Your task to perform on an android device: How big is the universe? Image 0: 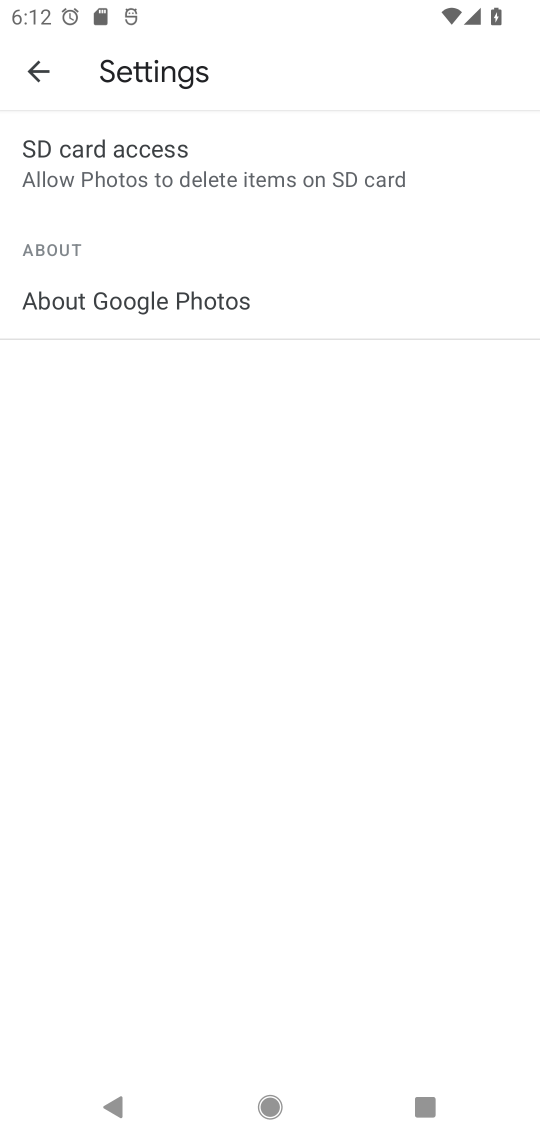
Step 0: press home button
Your task to perform on an android device: How big is the universe? Image 1: 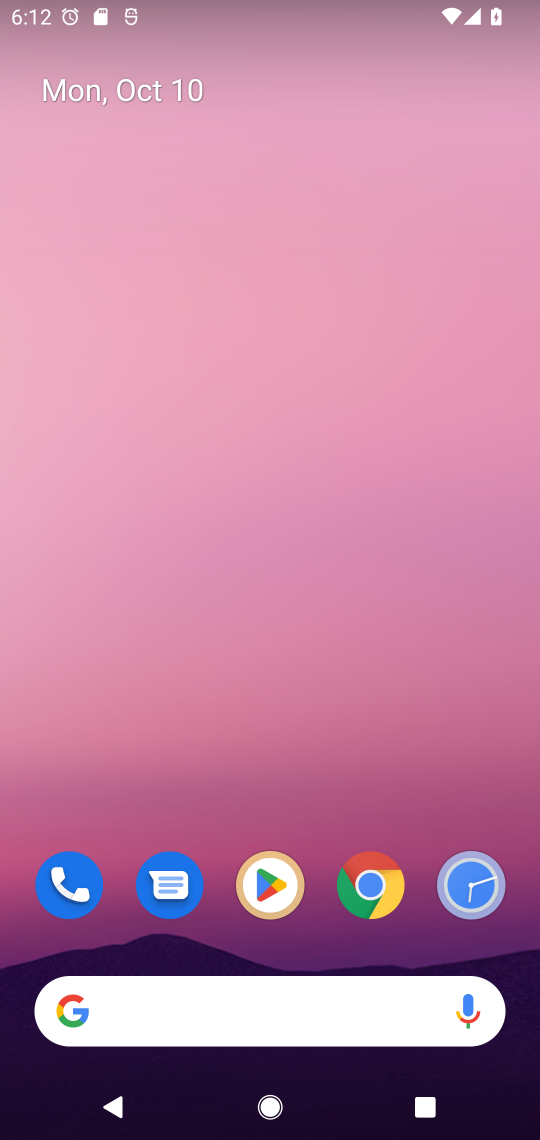
Step 1: click (370, 883)
Your task to perform on an android device: How big is the universe? Image 2: 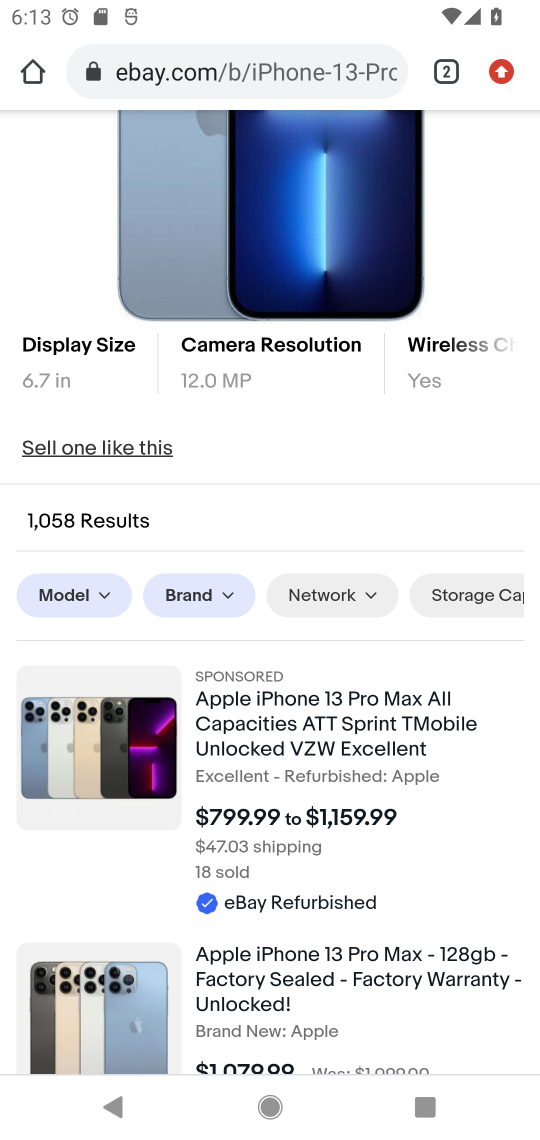
Step 2: click (192, 72)
Your task to perform on an android device: How big is the universe? Image 3: 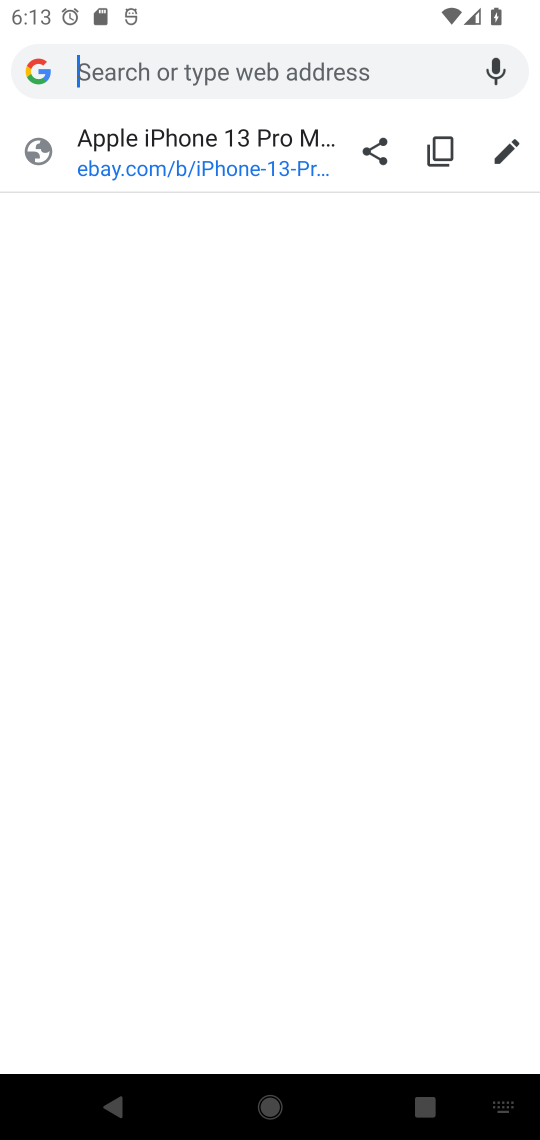
Step 3: type "How big is the universe"
Your task to perform on an android device: How big is the universe? Image 4: 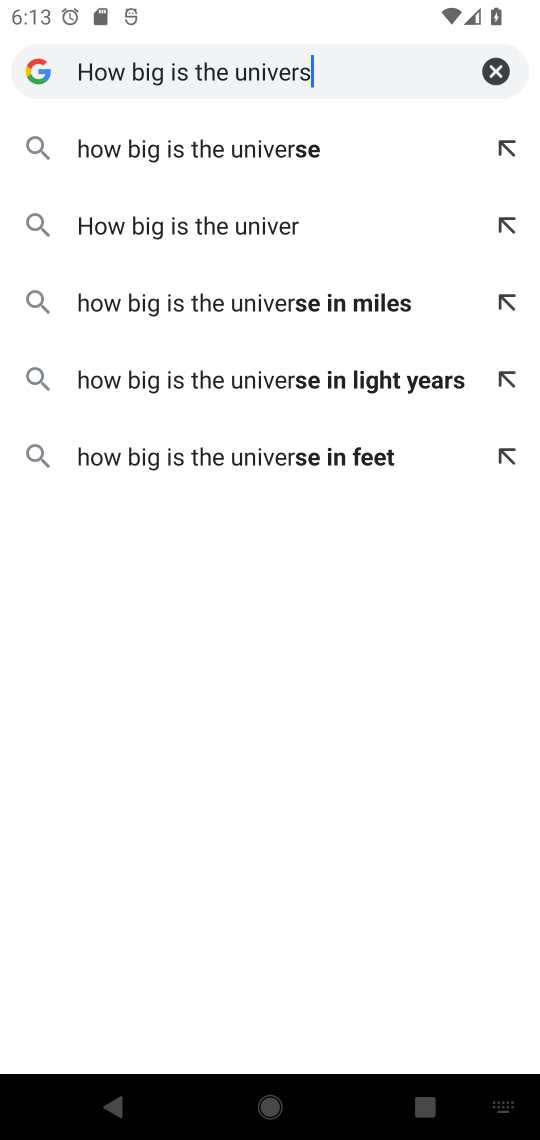
Step 4: type ""
Your task to perform on an android device: How big is the universe? Image 5: 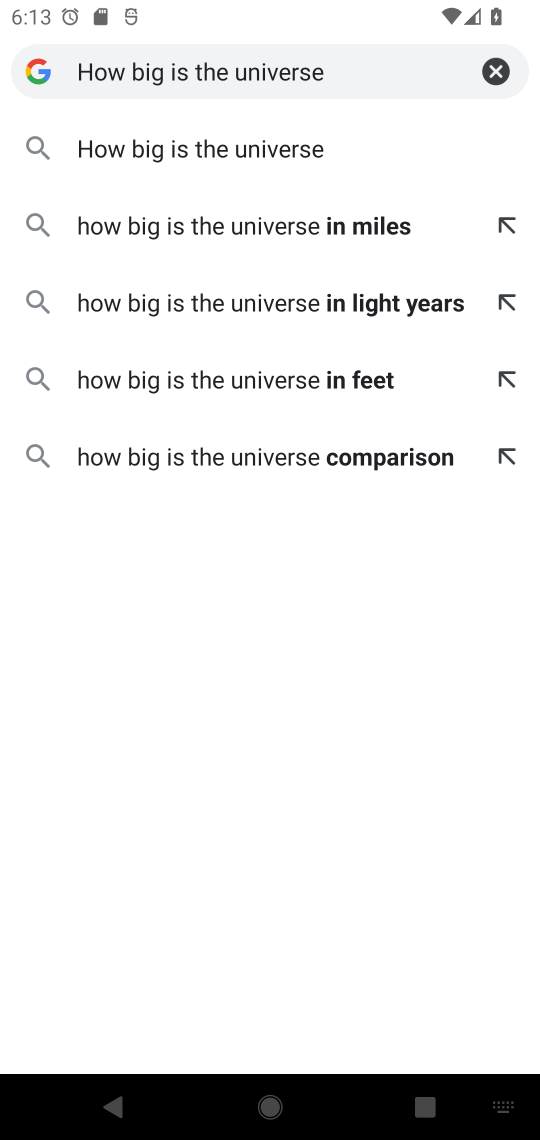
Step 5: click (273, 149)
Your task to perform on an android device: How big is the universe? Image 6: 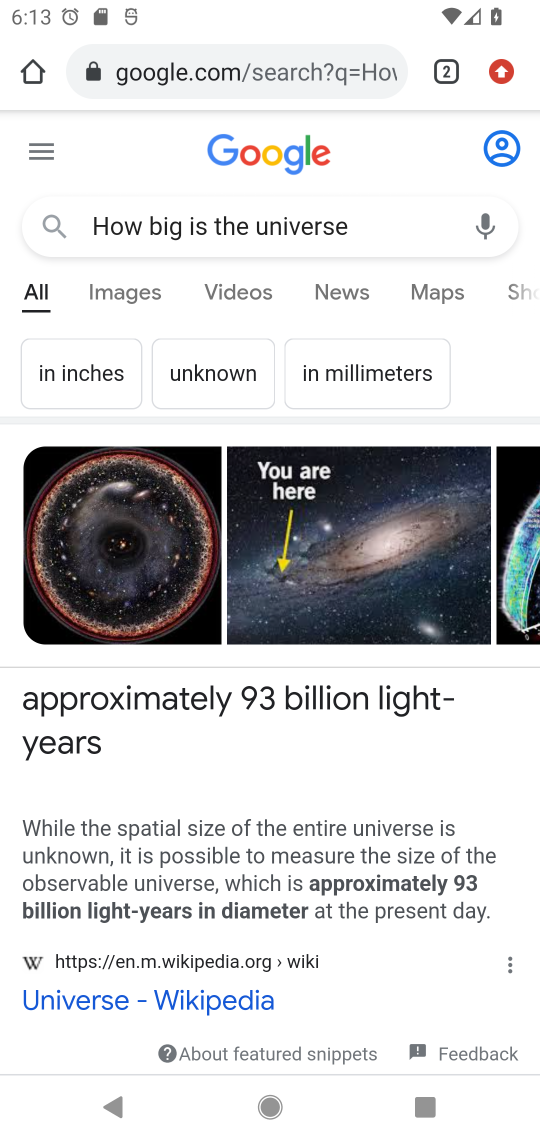
Step 6: task complete